Your task to perform on an android device: Search for the best rated tool bag on Lowe's. Image 0: 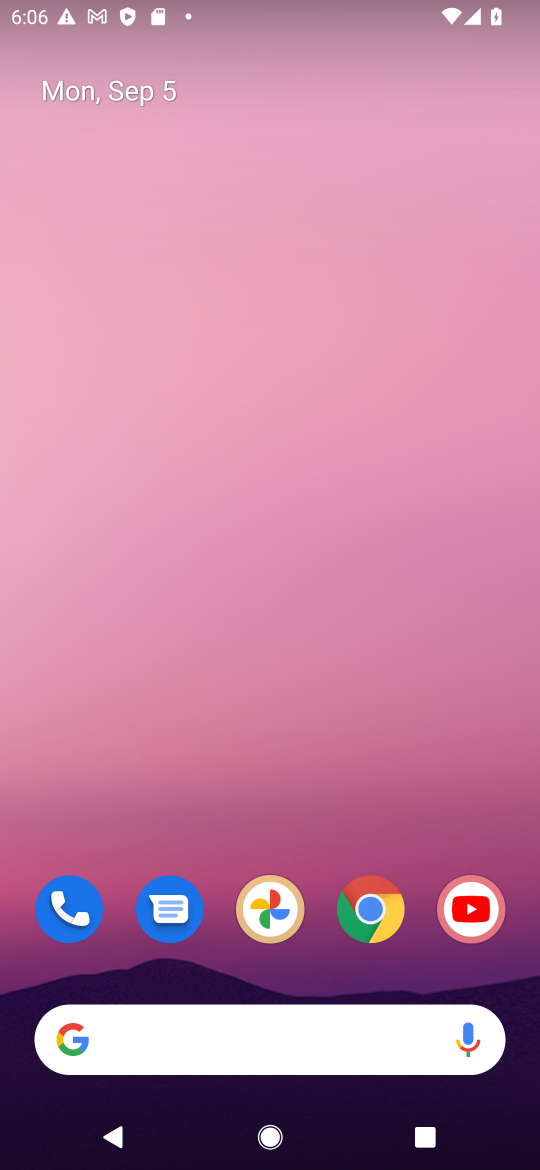
Step 0: drag from (291, 935) to (312, 129)
Your task to perform on an android device: Search for the best rated tool bag on Lowe's. Image 1: 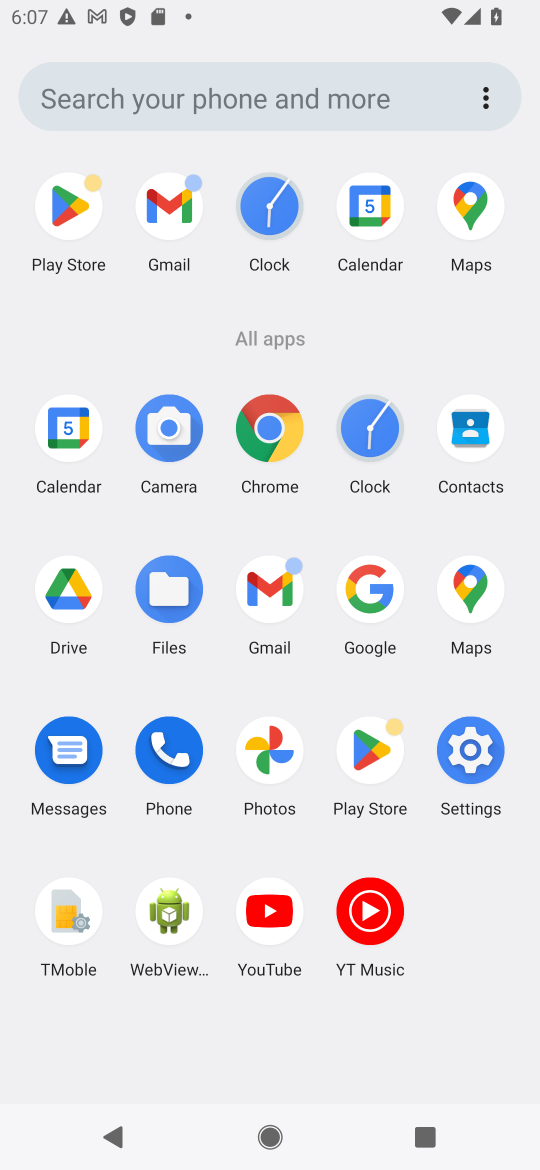
Step 1: click (352, 592)
Your task to perform on an android device: Search for the best rated tool bag on Lowe's. Image 2: 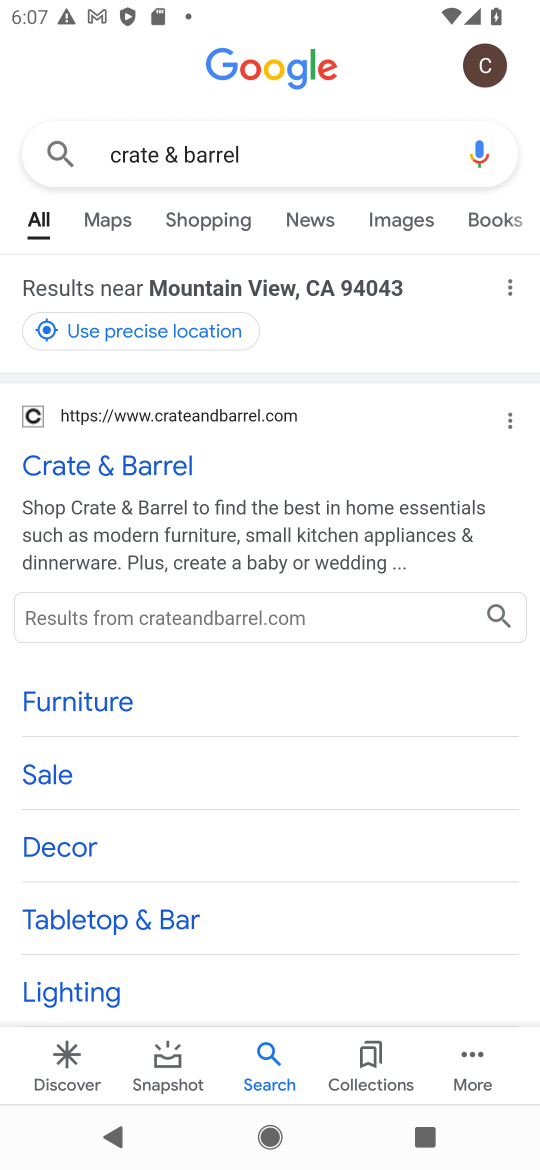
Step 2: click (265, 156)
Your task to perform on an android device: Search for the best rated tool bag on Lowe's. Image 3: 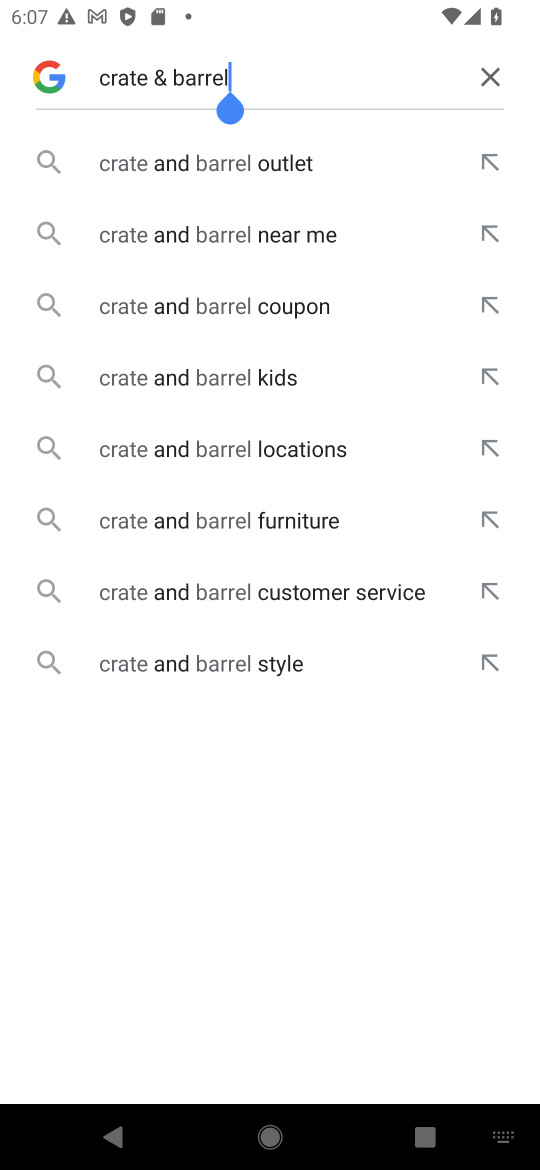
Step 3: click (489, 85)
Your task to perform on an android device: Search for the best rated tool bag on Lowe's. Image 4: 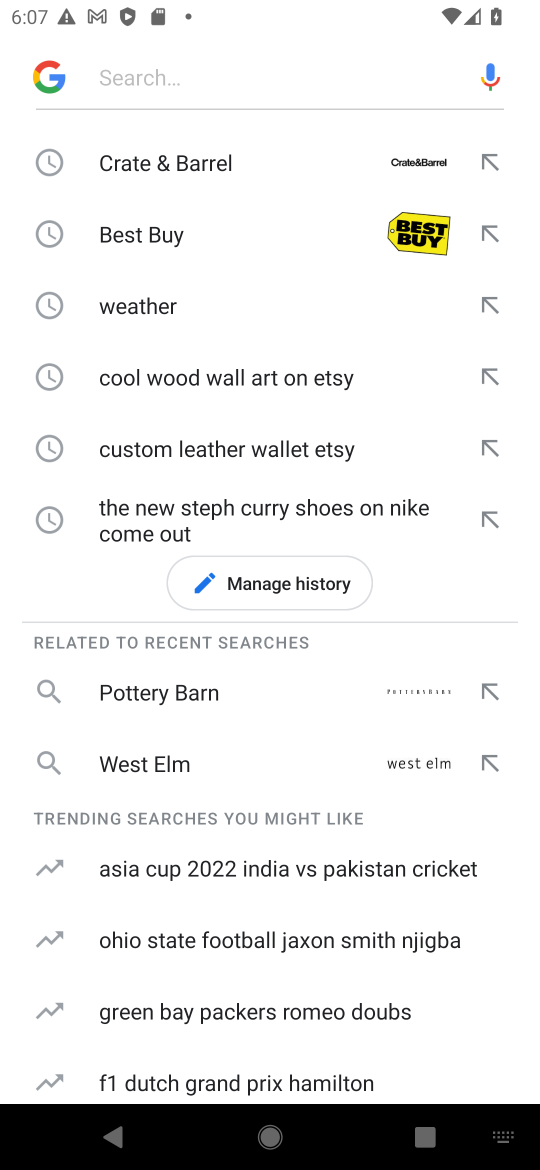
Step 4: type "Lowe's"
Your task to perform on an android device: Search for the best rated tool bag on Lowe's. Image 5: 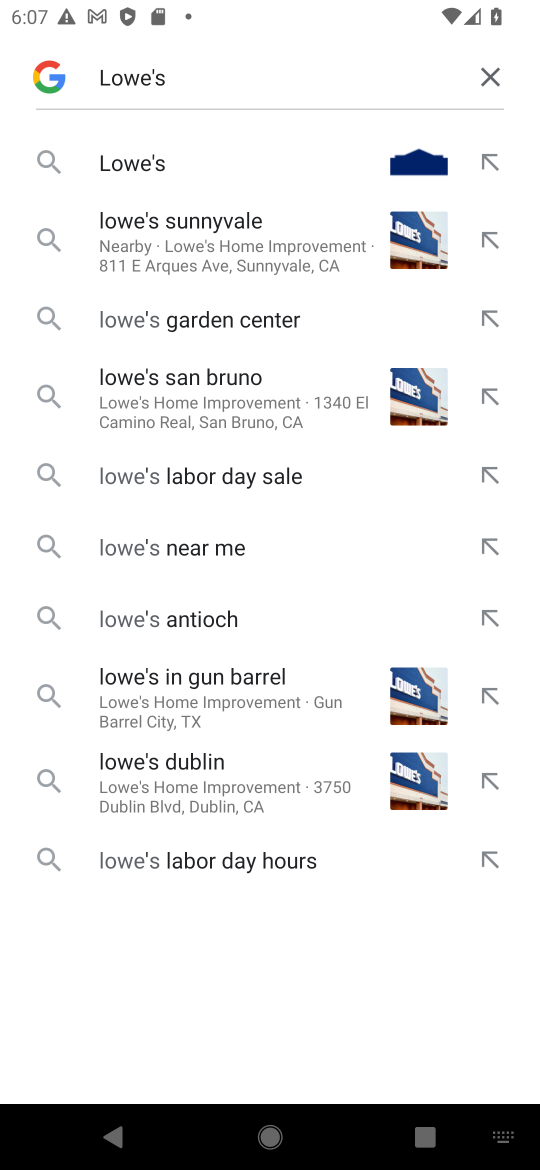
Step 5: click (139, 161)
Your task to perform on an android device: Search for the best rated tool bag on Lowe's. Image 6: 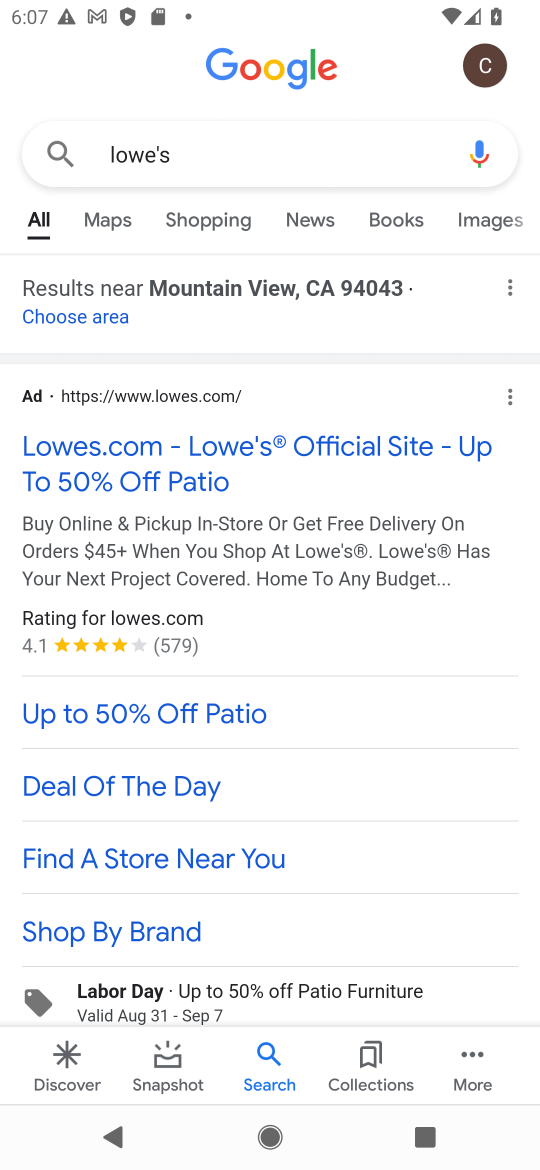
Step 6: click (124, 466)
Your task to perform on an android device: Search for the best rated tool bag on Lowe's. Image 7: 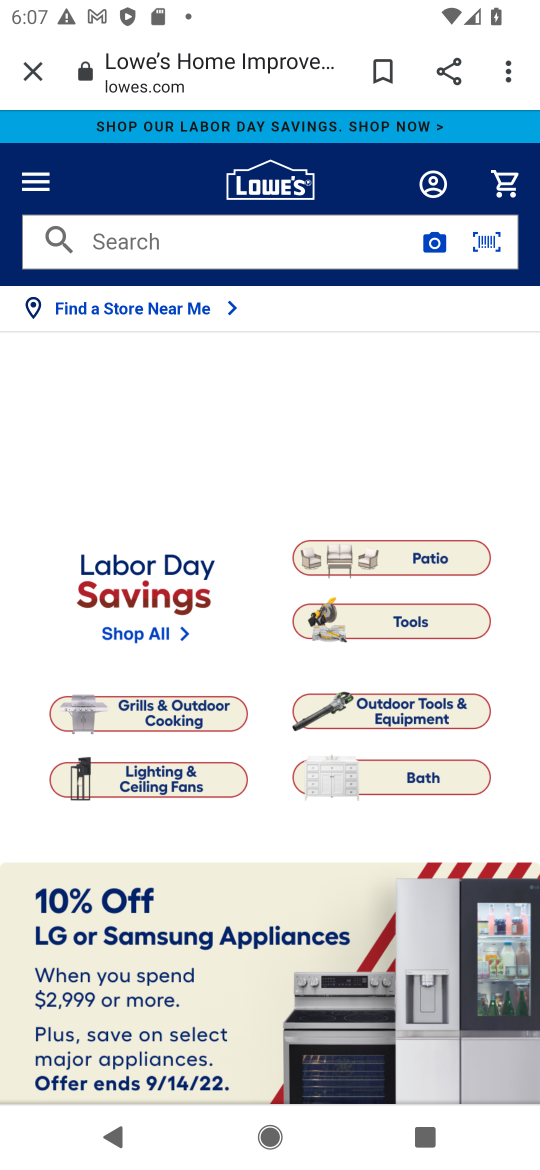
Step 7: click (272, 246)
Your task to perform on an android device: Search for the best rated tool bag on Lowe's. Image 8: 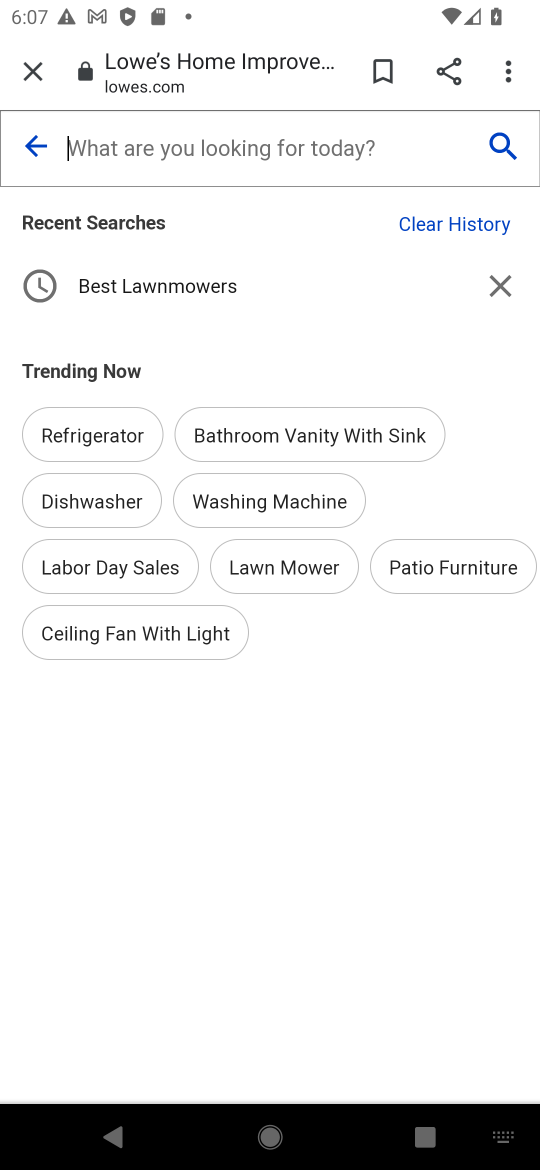
Step 8: type "best rated tool bag"
Your task to perform on an android device: Search for the best rated tool bag on Lowe's. Image 9: 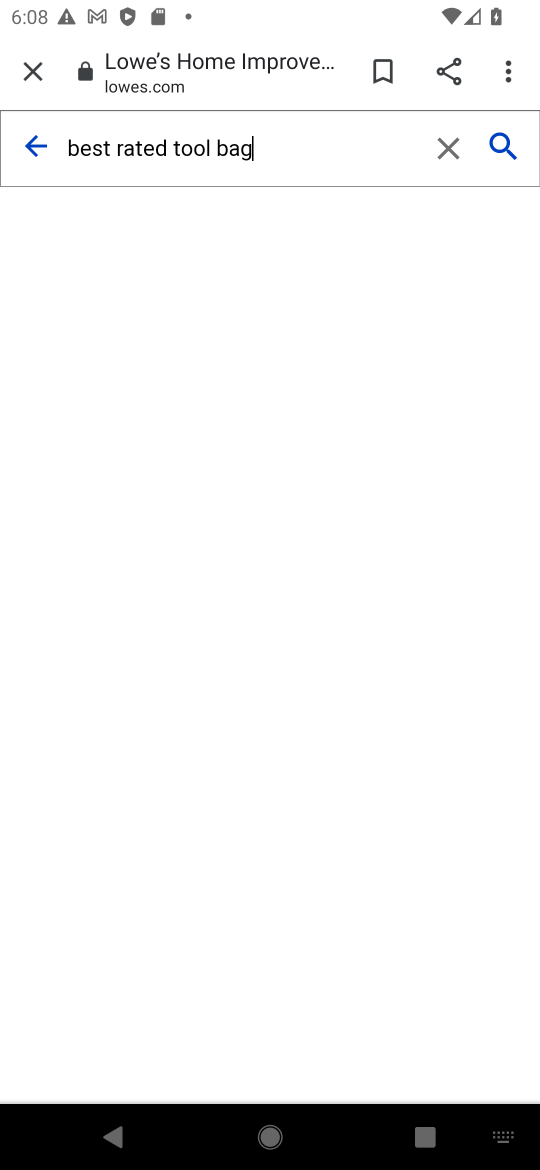
Step 9: click (505, 143)
Your task to perform on an android device: Search for the best rated tool bag on Lowe's. Image 10: 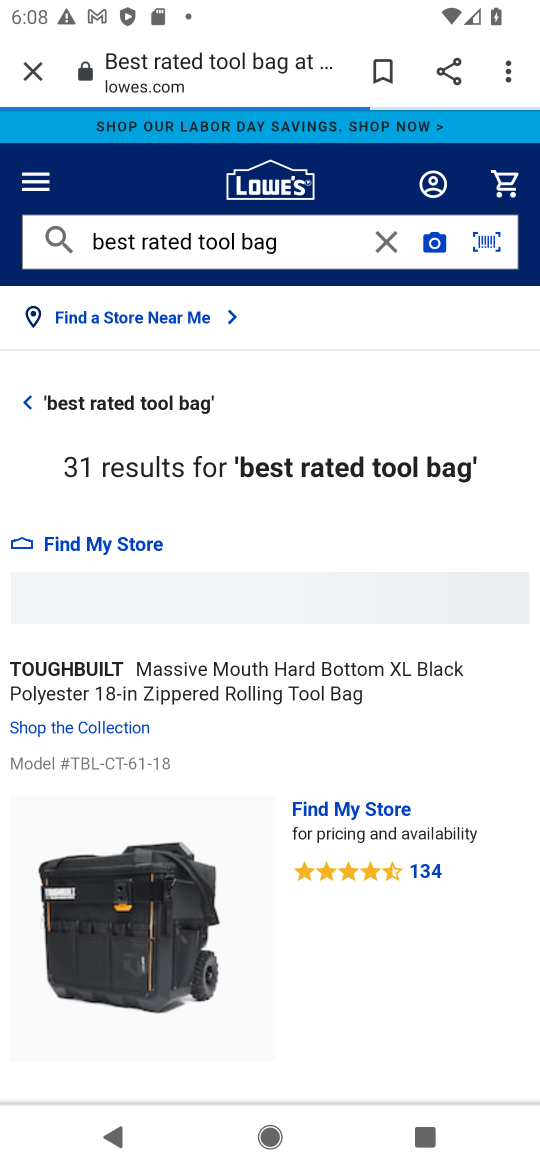
Step 10: task complete